Your task to perform on an android device: open app "NewsBreak: Local News & Alerts" (install if not already installed), go to login, and select forgot password Image 0: 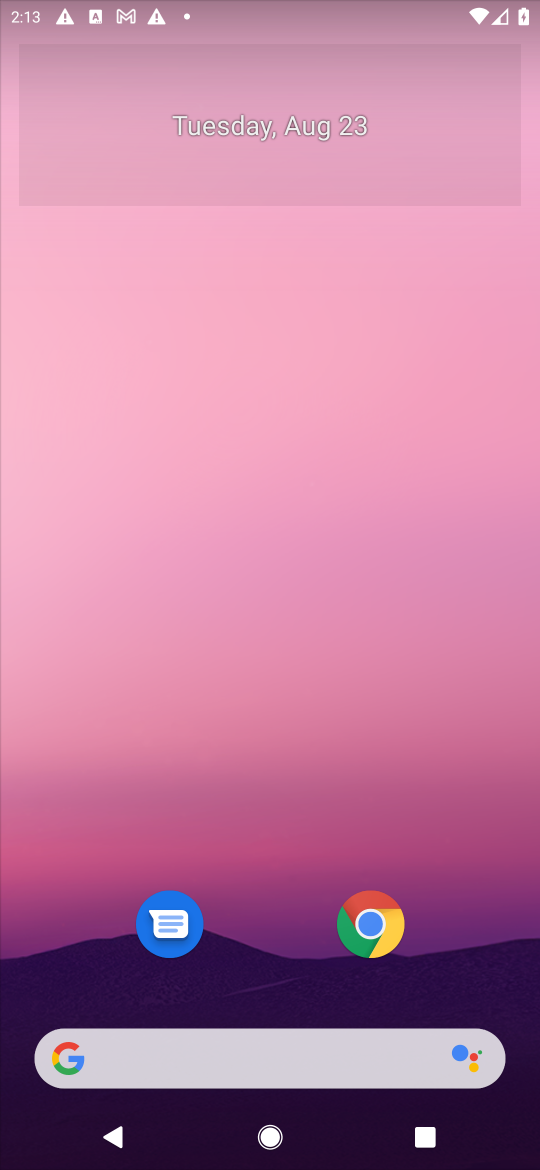
Step 0: press home button
Your task to perform on an android device: open app "NewsBreak: Local News & Alerts" (install if not already installed), go to login, and select forgot password Image 1: 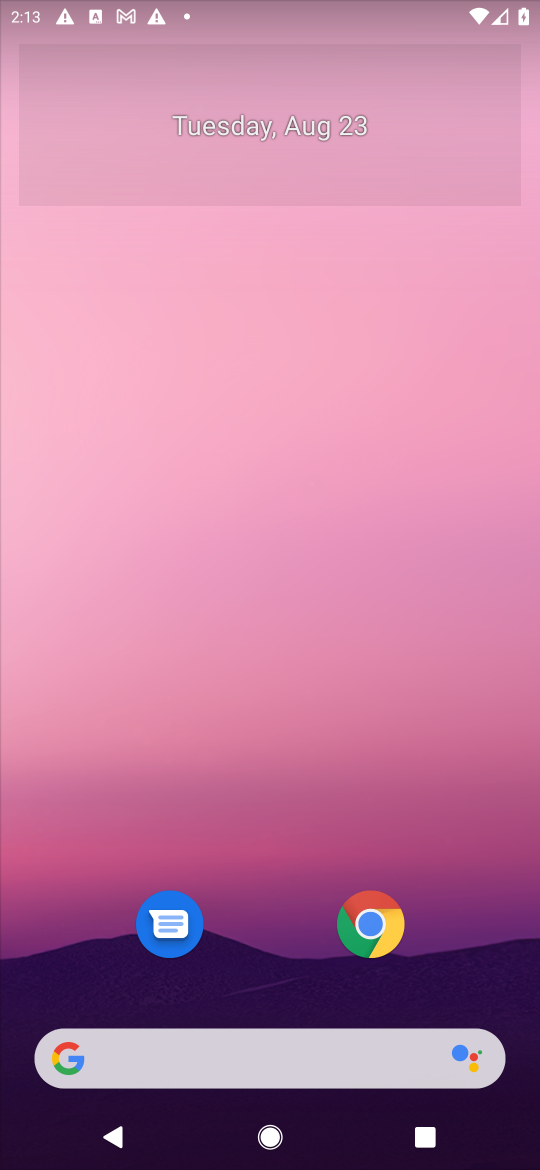
Step 1: drag from (467, 955) to (460, 98)
Your task to perform on an android device: open app "NewsBreak: Local News & Alerts" (install if not already installed), go to login, and select forgot password Image 2: 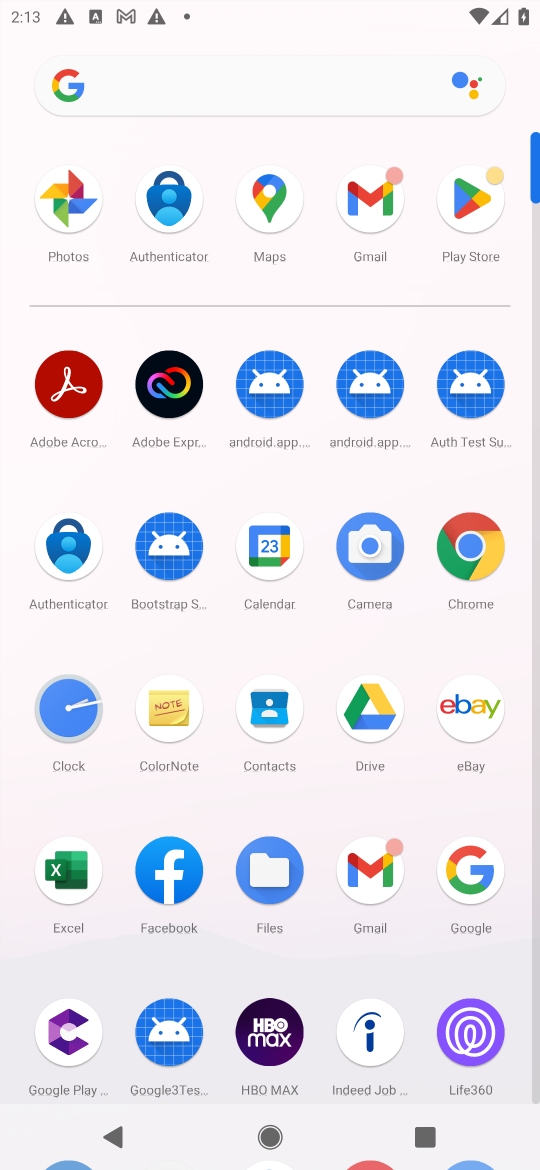
Step 2: click (475, 186)
Your task to perform on an android device: open app "NewsBreak: Local News & Alerts" (install if not already installed), go to login, and select forgot password Image 3: 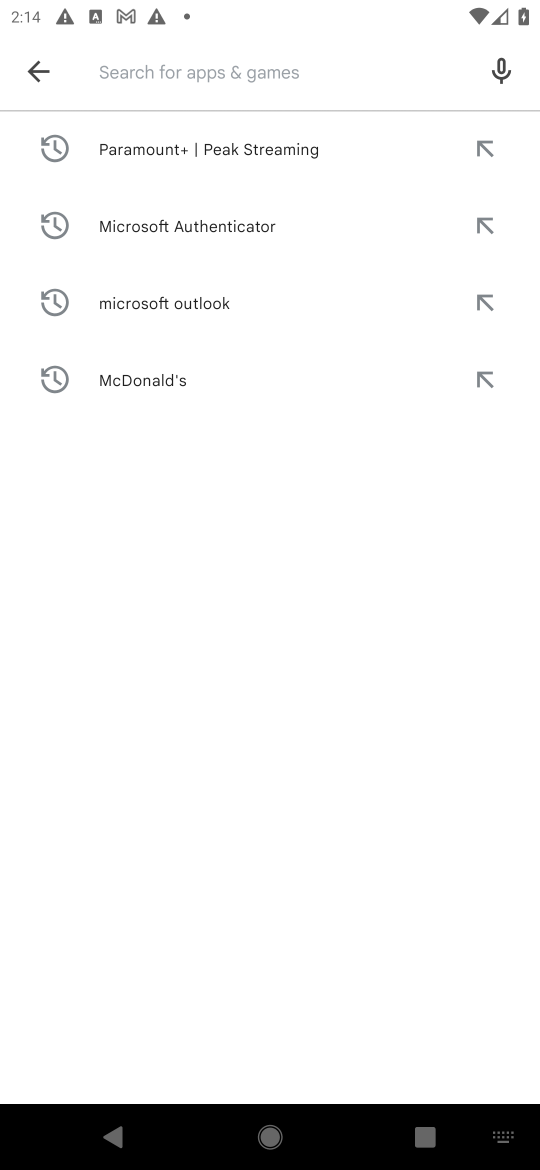
Step 3: type "NewsBreak: Local News & Alerts"
Your task to perform on an android device: open app "NewsBreak: Local News & Alerts" (install if not already installed), go to login, and select forgot password Image 4: 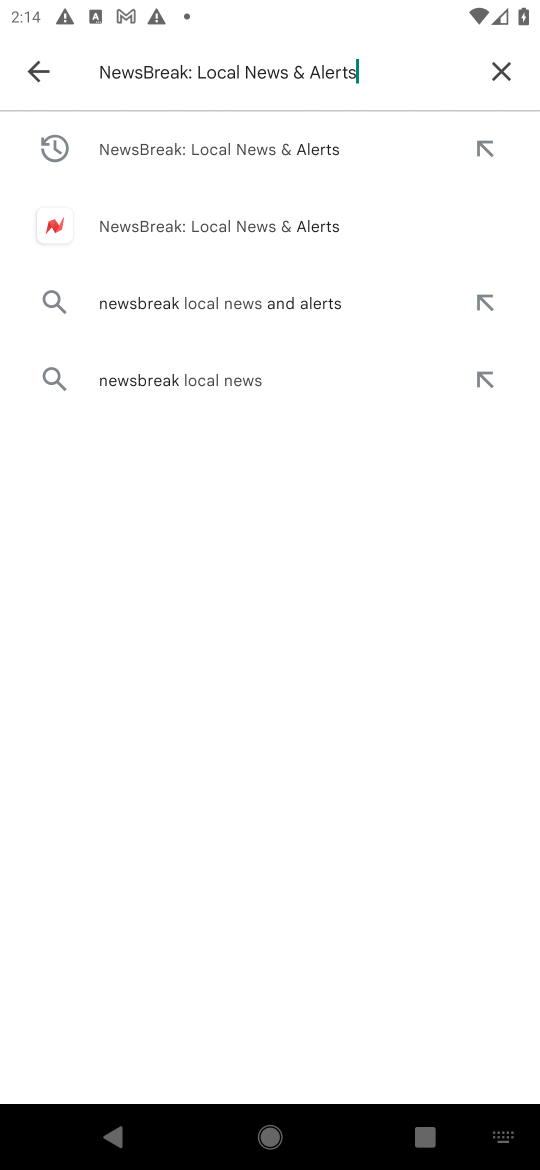
Step 4: press enter
Your task to perform on an android device: open app "NewsBreak: Local News & Alerts" (install if not already installed), go to login, and select forgot password Image 5: 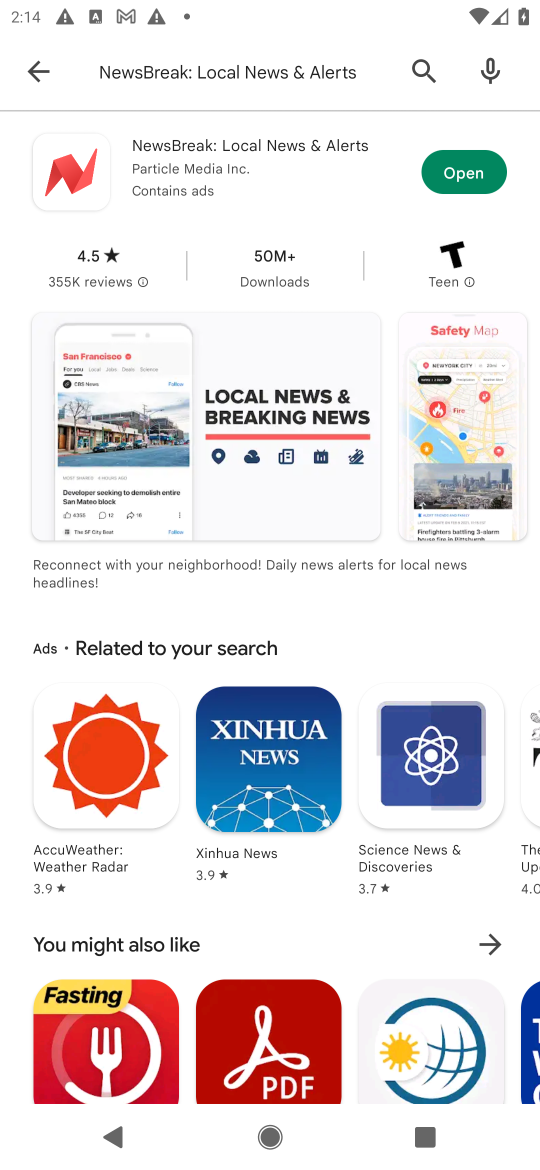
Step 5: click (464, 168)
Your task to perform on an android device: open app "NewsBreak: Local News & Alerts" (install if not already installed), go to login, and select forgot password Image 6: 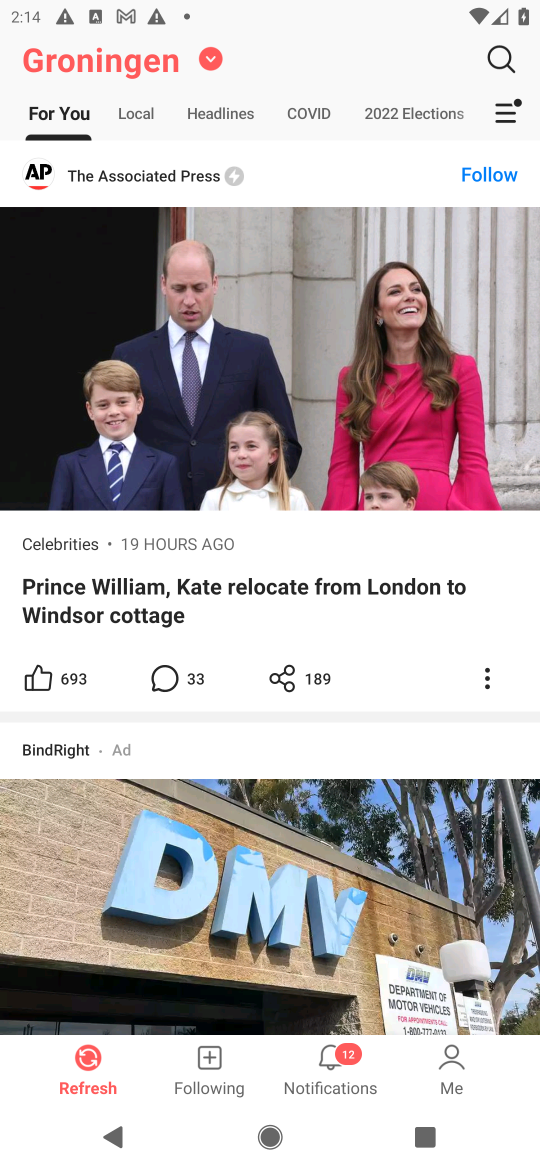
Step 6: task complete